Your task to perform on an android device: Go to CNN.com Image 0: 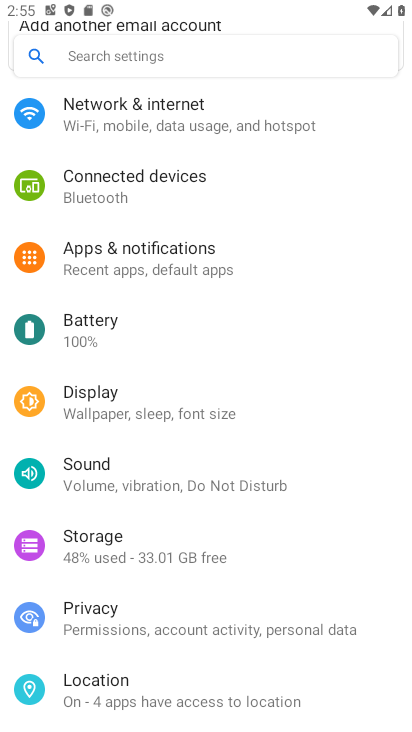
Step 0: press home button
Your task to perform on an android device: Go to CNN.com Image 1: 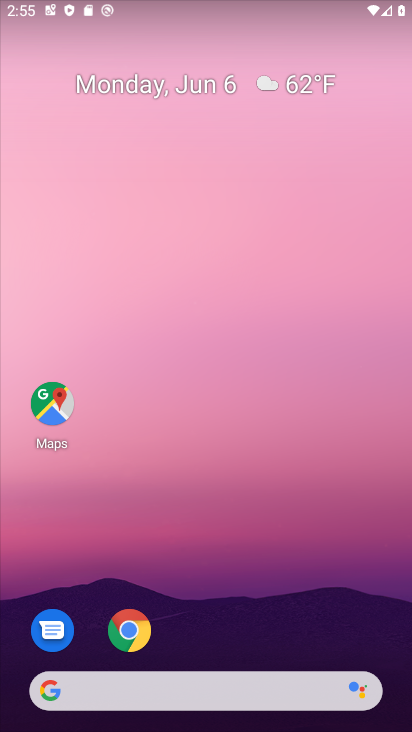
Step 1: click (131, 624)
Your task to perform on an android device: Go to CNN.com Image 2: 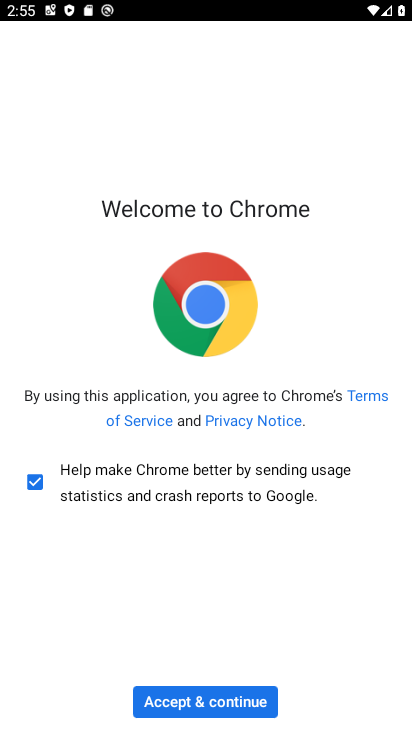
Step 2: click (230, 705)
Your task to perform on an android device: Go to CNN.com Image 3: 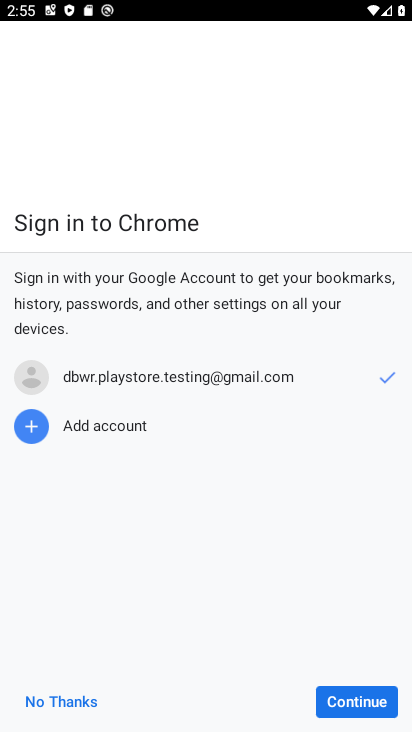
Step 3: click (344, 699)
Your task to perform on an android device: Go to CNN.com Image 4: 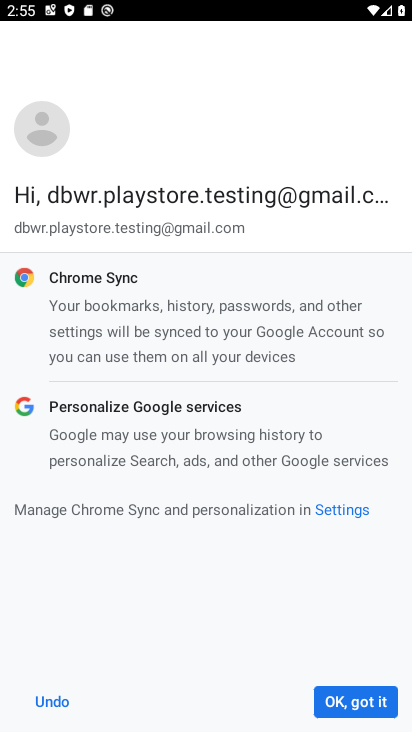
Step 4: click (343, 697)
Your task to perform on an android device: Go to CNN.com Image 5: 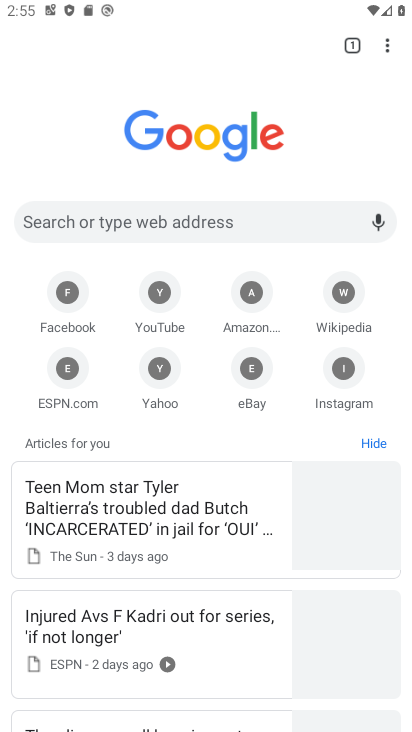
Step 5: click (233, 219)
Your task to perform on an android device: Go to CNN.com Image 6: 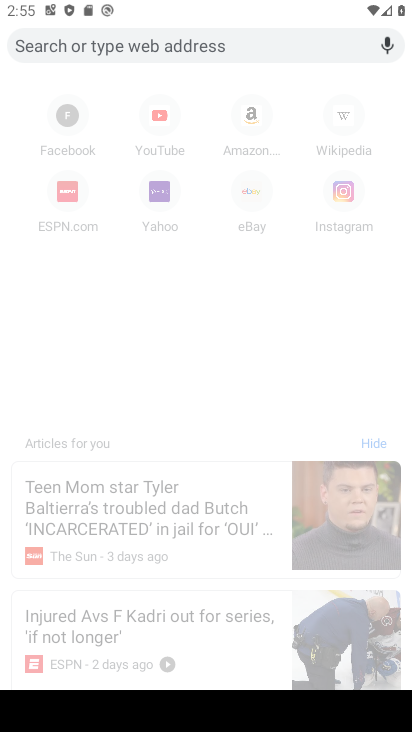
Step 6: click (92, 35)
Your task to perform on an android device: Go to CNN.com Image 7: 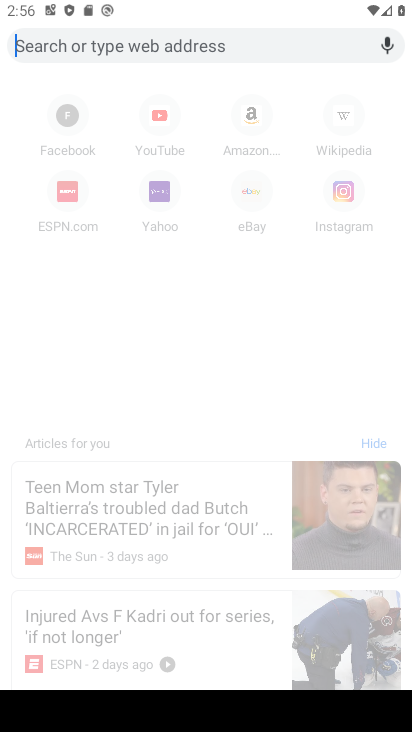
Step 7: click (158, 36)
Your task to perform on an android device: Go to CNN.com Image 8: 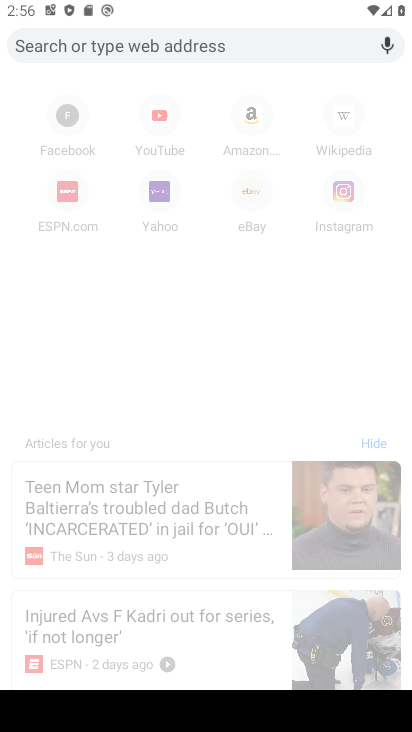
Step 8: type "CNN.com"
Your task to perform on an android device: Go to CNN.com Image 9: 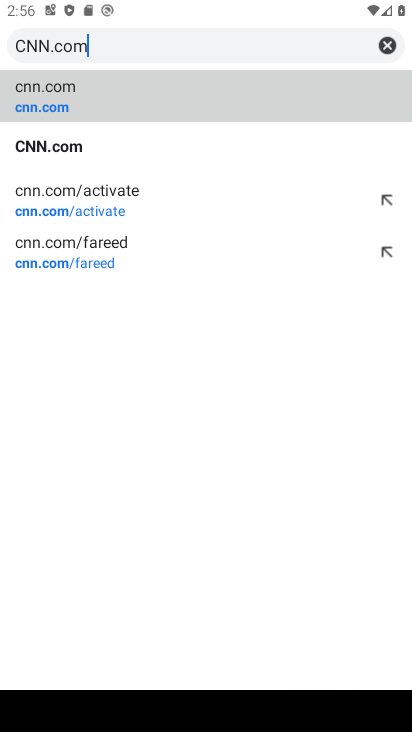
Step 9: click (82, 89)
Your task to perform on an android device: Go to CNN.com Image 10: 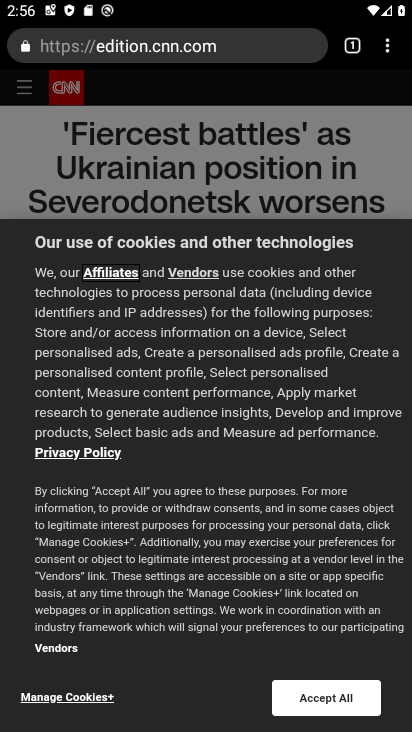
Step 10: task complete